Your task to perform on an android device: open a bookmark in the chrome app Image 0: 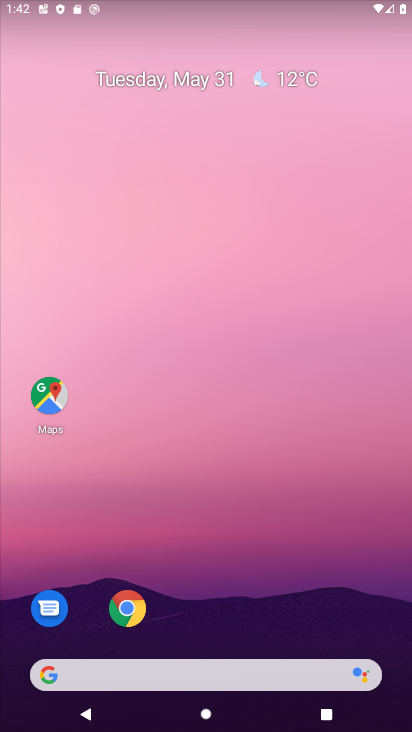
Step 0: click (263, 232)
Your task to perform on an android device: open a bookmark in the chrome app Image 1: 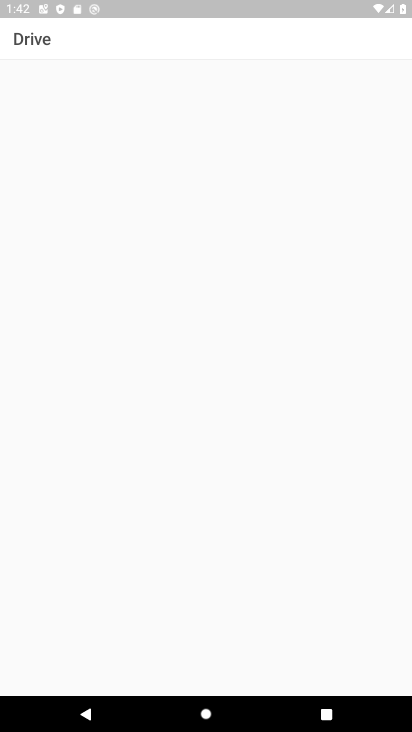
Step 1: press home button
Your task to perform on an android device: open a bookmark in the chrome app Image 2: 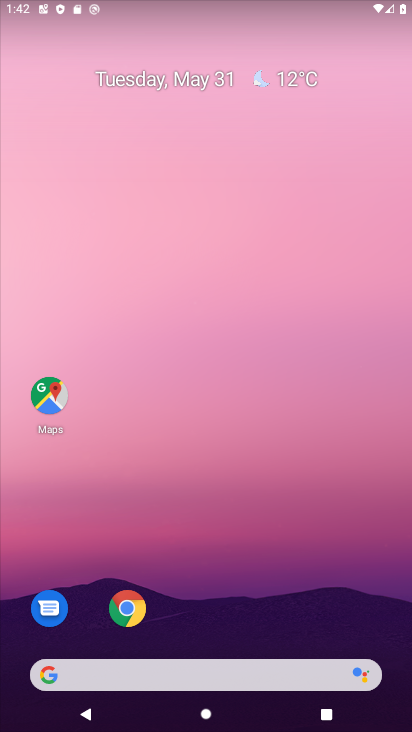
Step 2: drag from (204, 582) to (181, 210)
Your task to perform on an android device: open a bookmark in the chrome app Image 3: 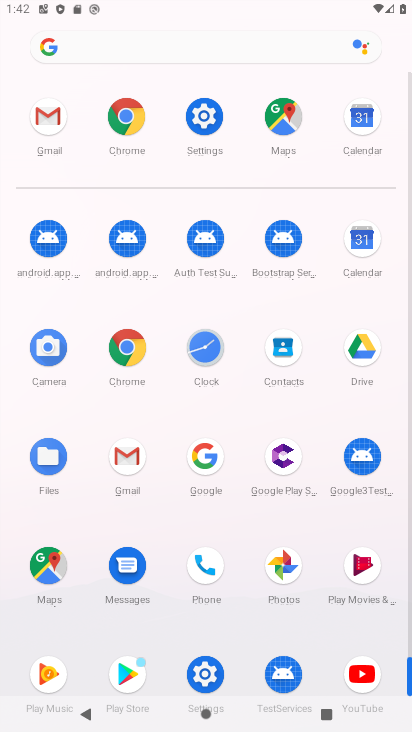
Step 3: click (122, 352)
Your task to perform on an android device: open a bookmark in the chrome app Image 4: 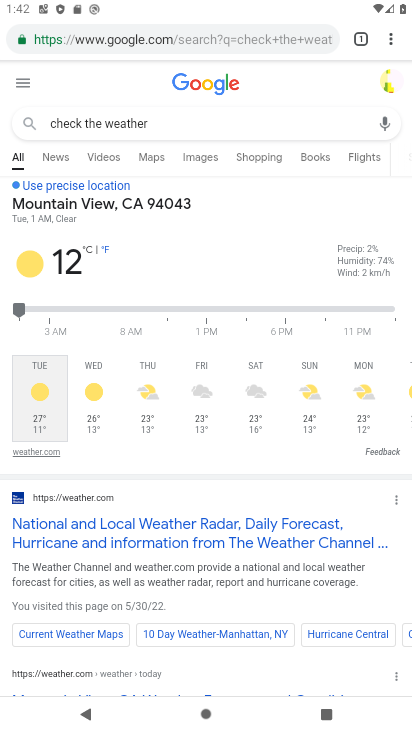
Step 4: task complete